Your task to perform on an android device: open chrome and create a bookmark for the current page Image 0: 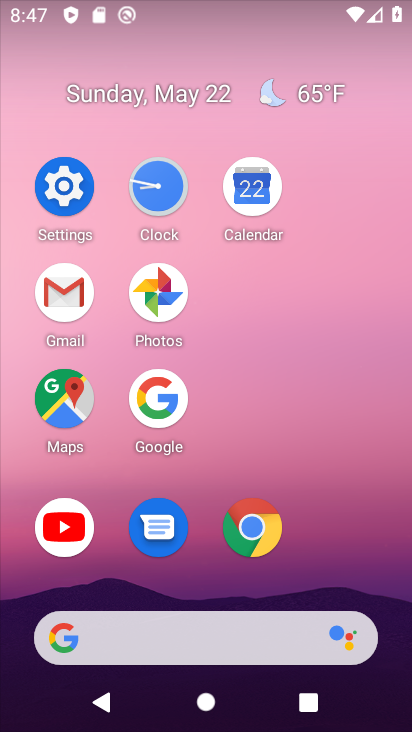
Step 0: click (249, 533)
Your task to perform on an android device: open chrome and create a bookmark for the current page Image 1: 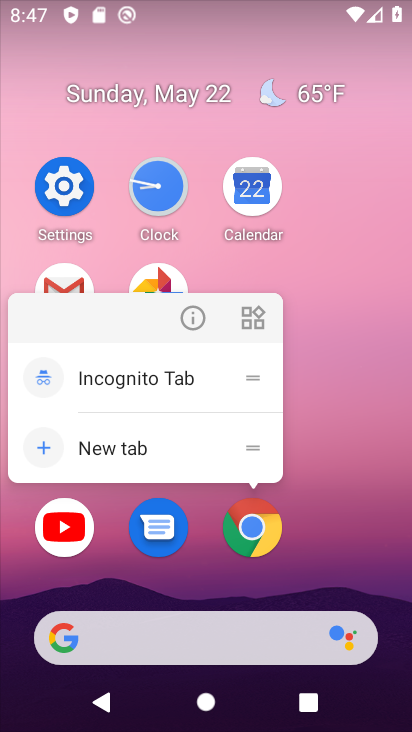
Step 1: click (258, 515)
Your task to perform on an android device: open chrome and create a bookmark for the current page Image 2: 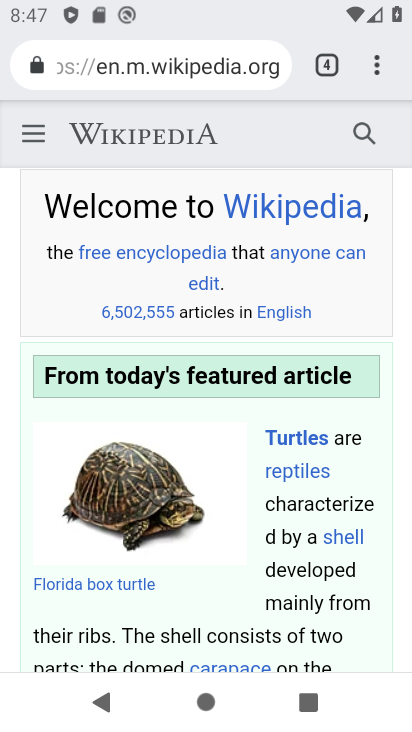
Step 2: click (381, 92)
Your task to perform on an android device: open chrome and create a bookmark for the current page Image 3: 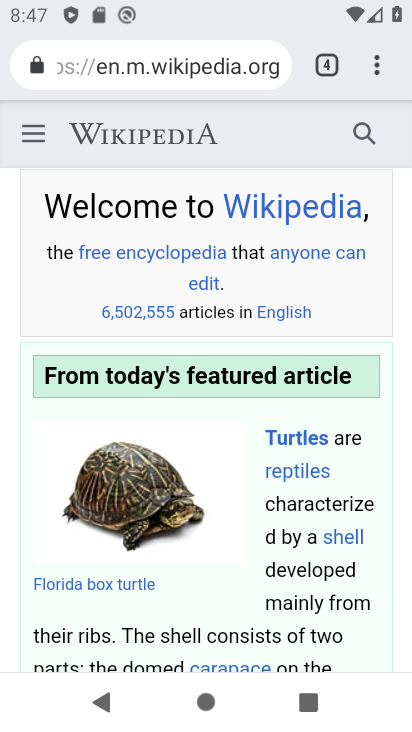
Step 3: click (389, 56)
Your task to perform on an android device: open chrome and create a bookmark for the current page Image 4: 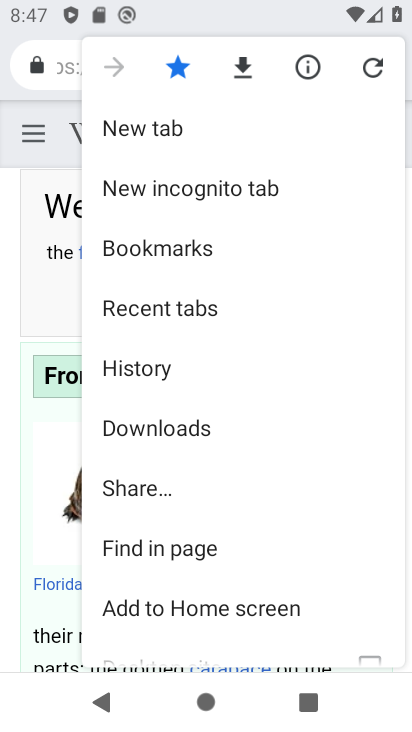
Step 4: task complete